Your task to perform on an android device: Do I have any events today? Image 0: 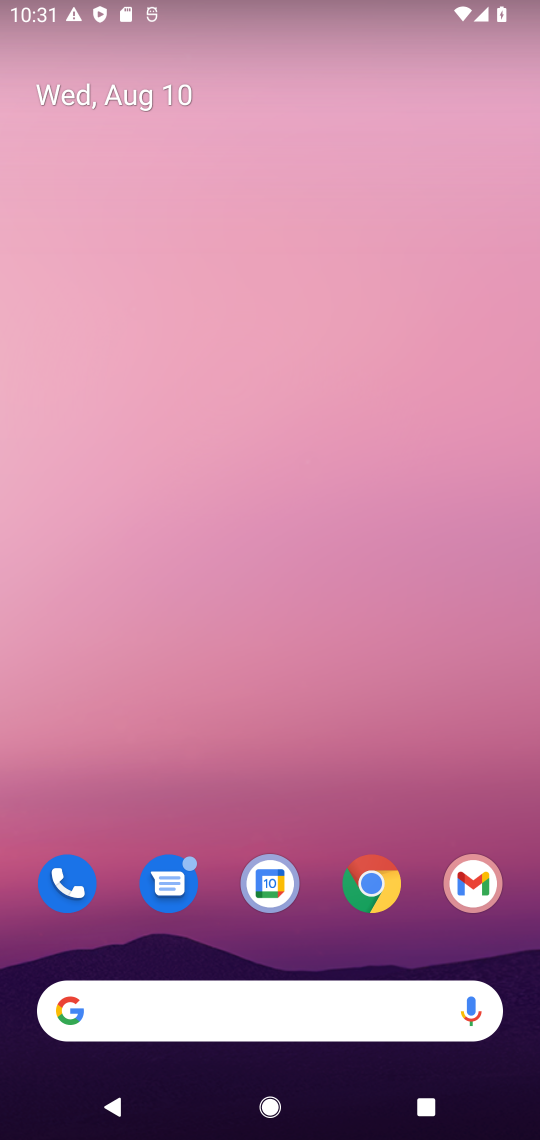
Step 0: drag from (298, 897) to (397, 77)
Your task to perform on an android device: Do I have any events today? Image 1: 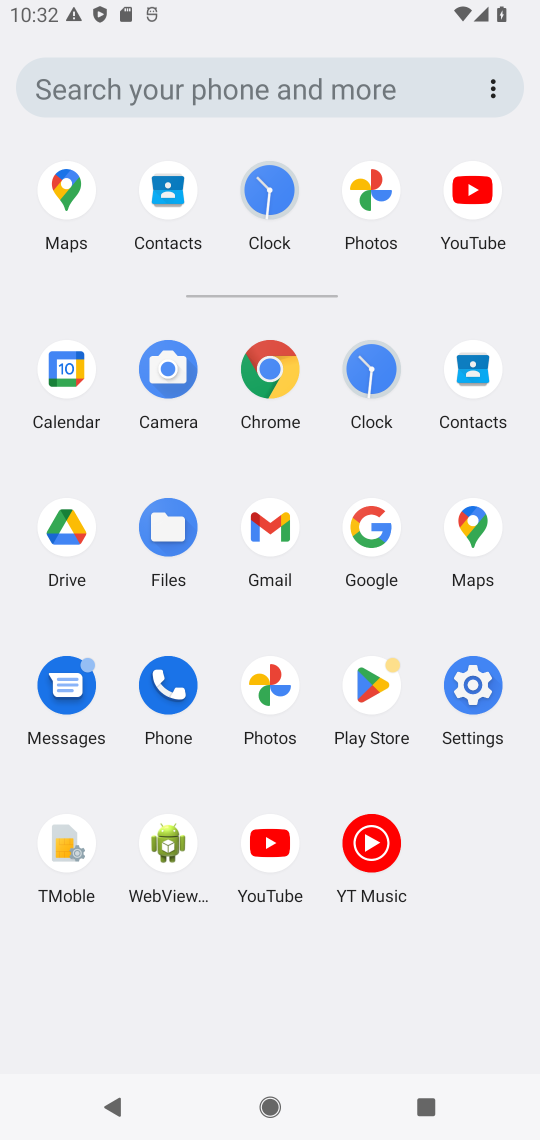
Step 1: click (47, 359)
Your task to perform on an android device: Do I have any events today? Image 2: 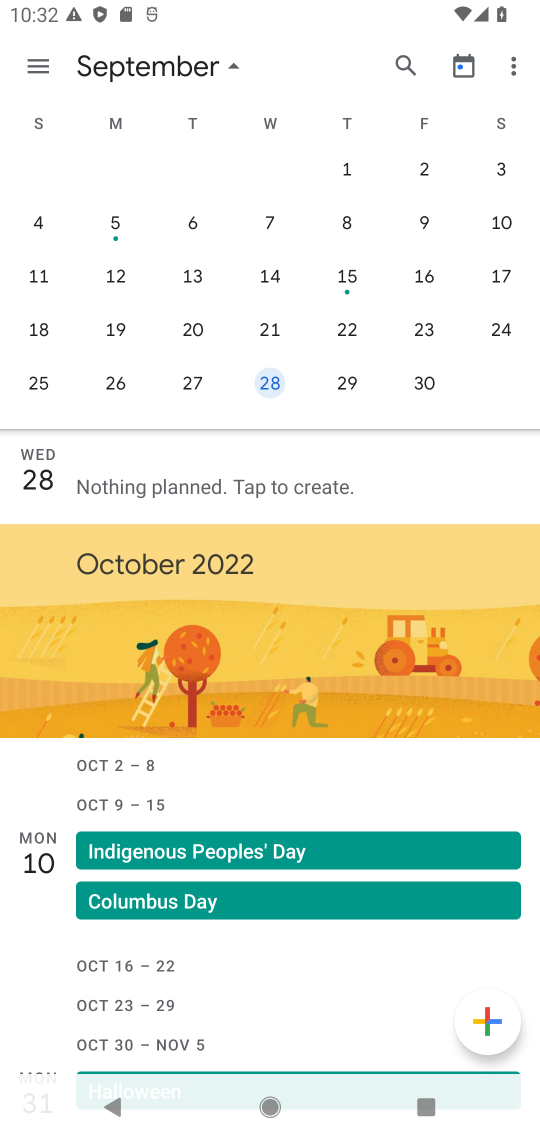
Step 2: drag from (99, 244) to (539, 323)
Your task to perform on an android device: Do I have any events today? Image 3: 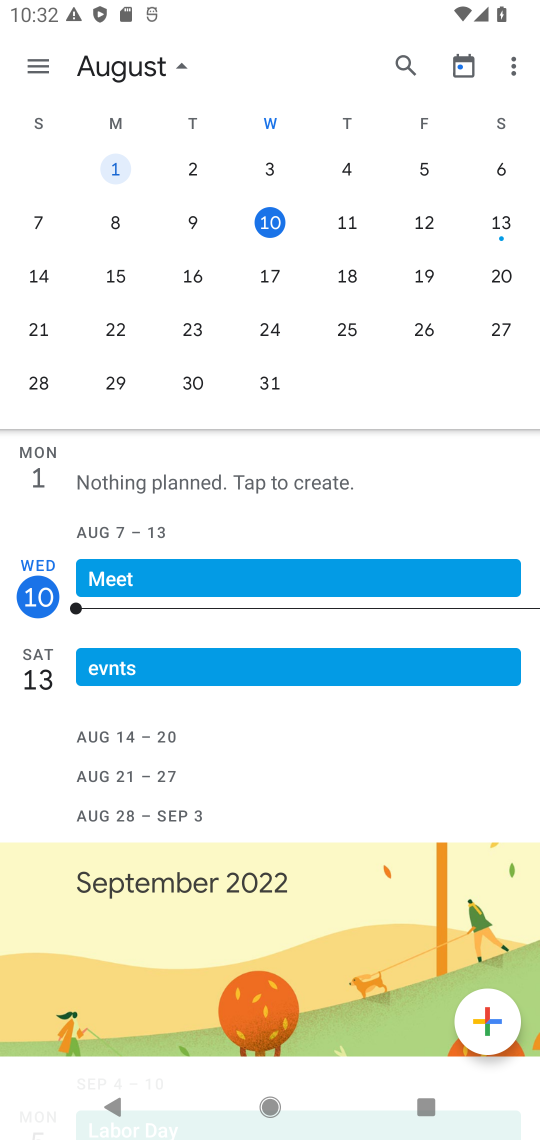
Step 3: click (267, 226)
Your task to perform on an android device: Do I have any events today? Image 4: 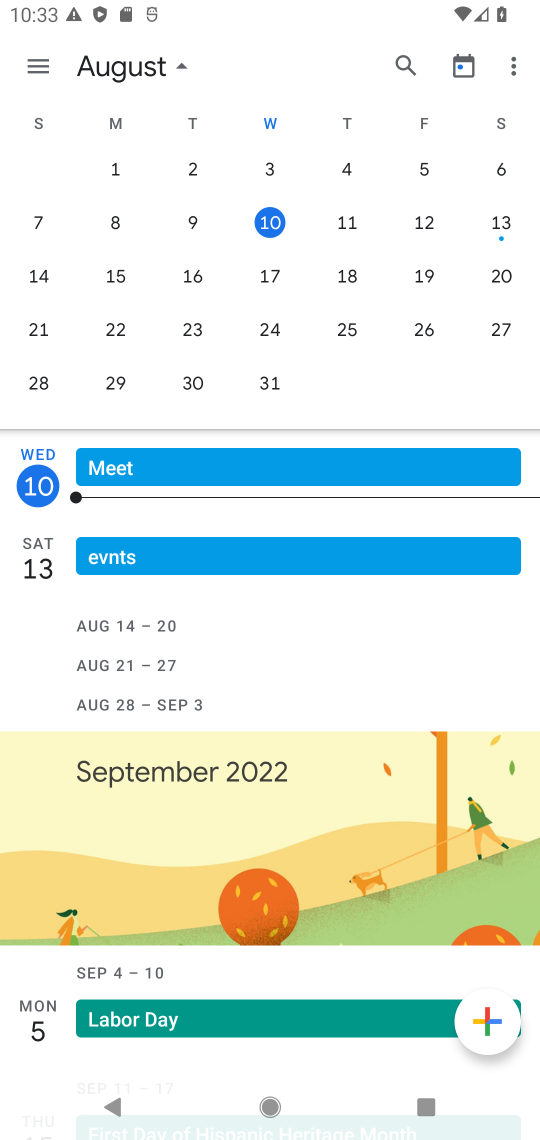
Step 4: task complete